Your task to perform on an android device: Search for sushi restaurants on Maps Image 0: 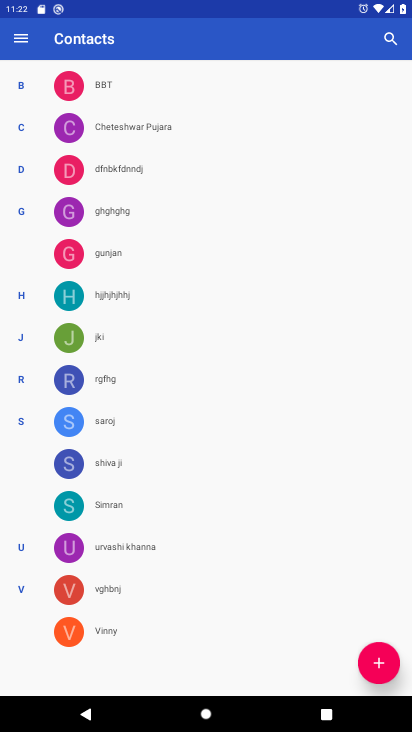
Step 0: press home button
Your task to perform on an android device: Search for sushi restaurants on Maps Image 1: 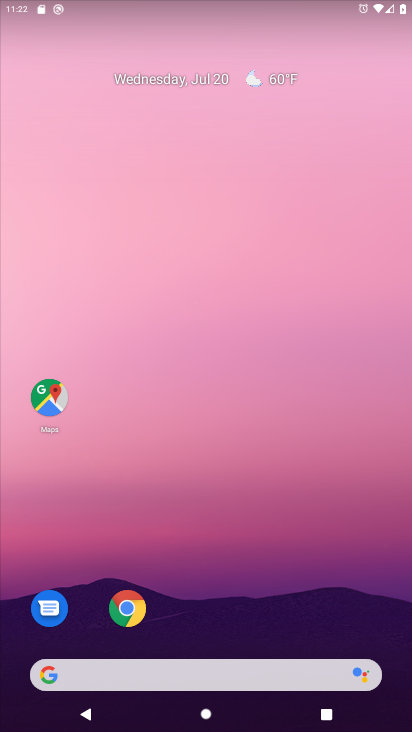
Step 1: click (46, 384)
Your task to perform on an android device: Search for sushi restaurants on Maps Image 2: 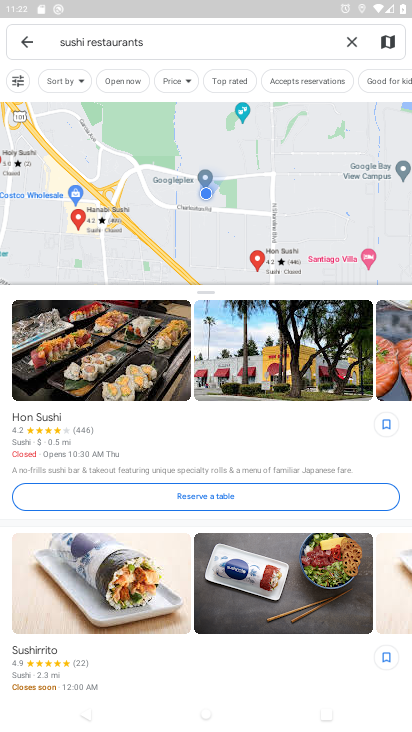
Step 2: task complete